Your task to perform on an android device: open app "Google Pay: Save, Pay, Manage" Image 0: 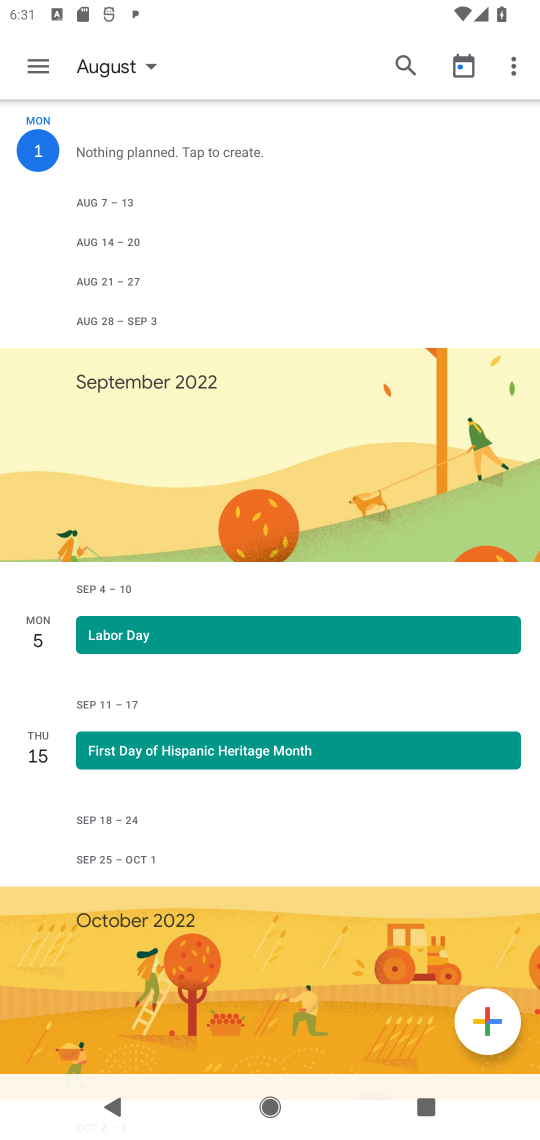
Step 0: press home button
Your task to perform on an android device: open app "Google Pay: Save, Pay, Manage" Image 1: 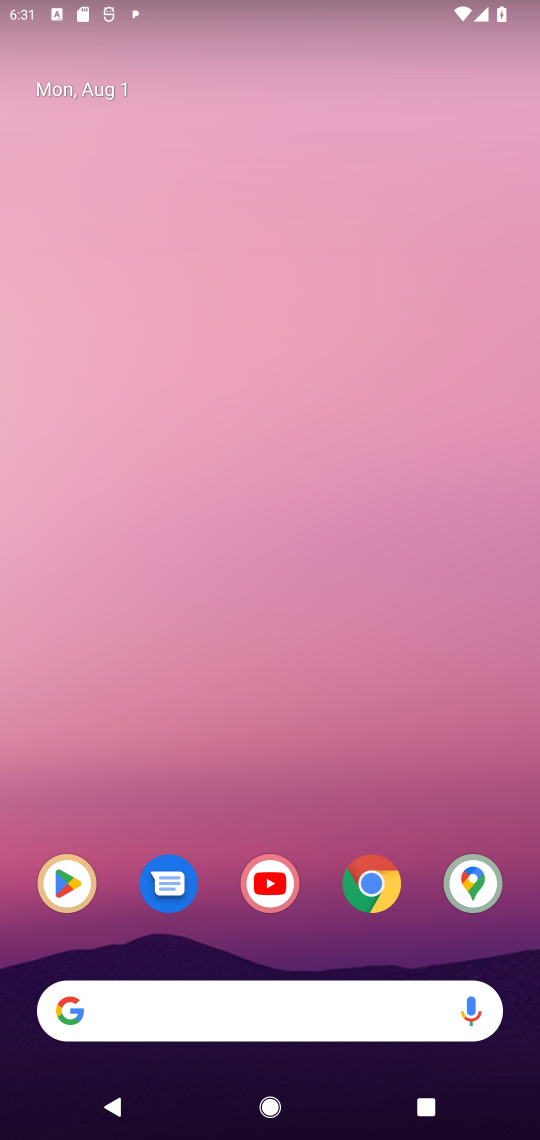
Step 1: click (62, 869)
Your task to perform on an android device: open app "Google Pay: Save, Pay, Manage" Image 2: 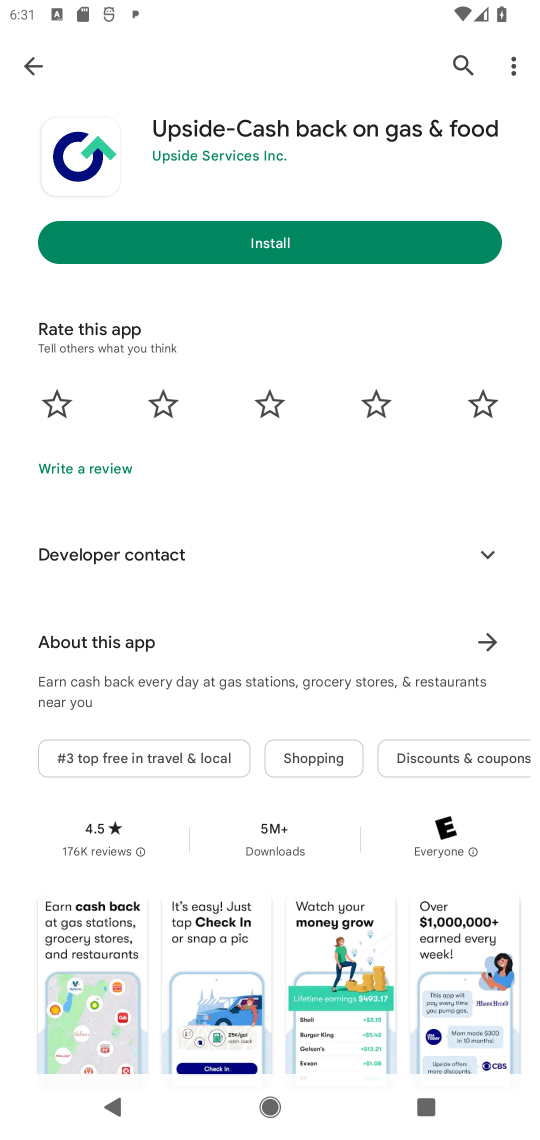
Step 2: click (72, 60)
Your task to perform on an android device: open app "Google Pay: Save, Pay, Manage" Image 3: 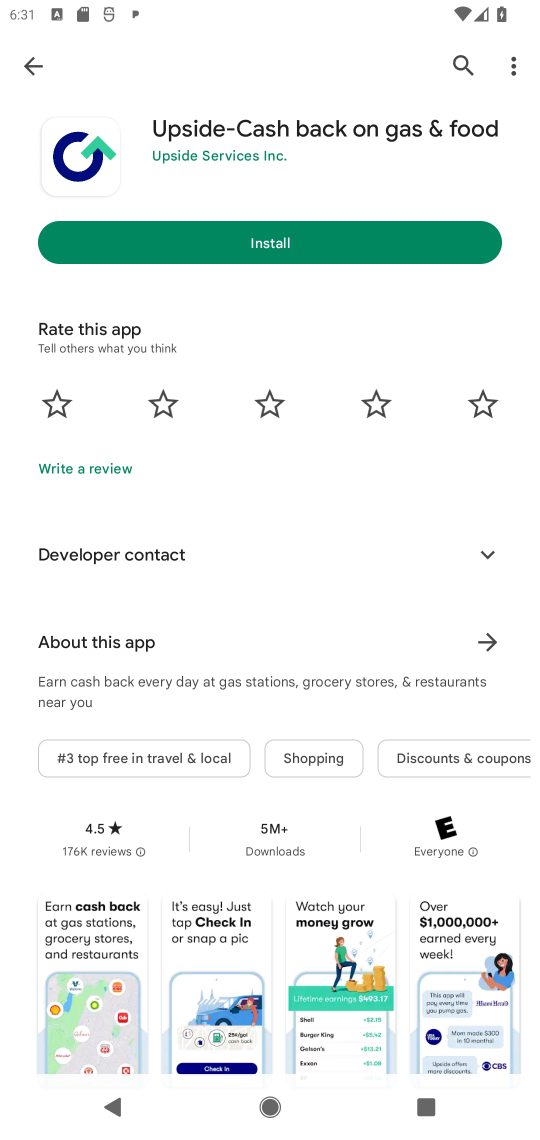
Step 3: click (35, 61)
Your task to perform on an android device: open app "Google Pay: Save, Pay, Manage" Image 4: 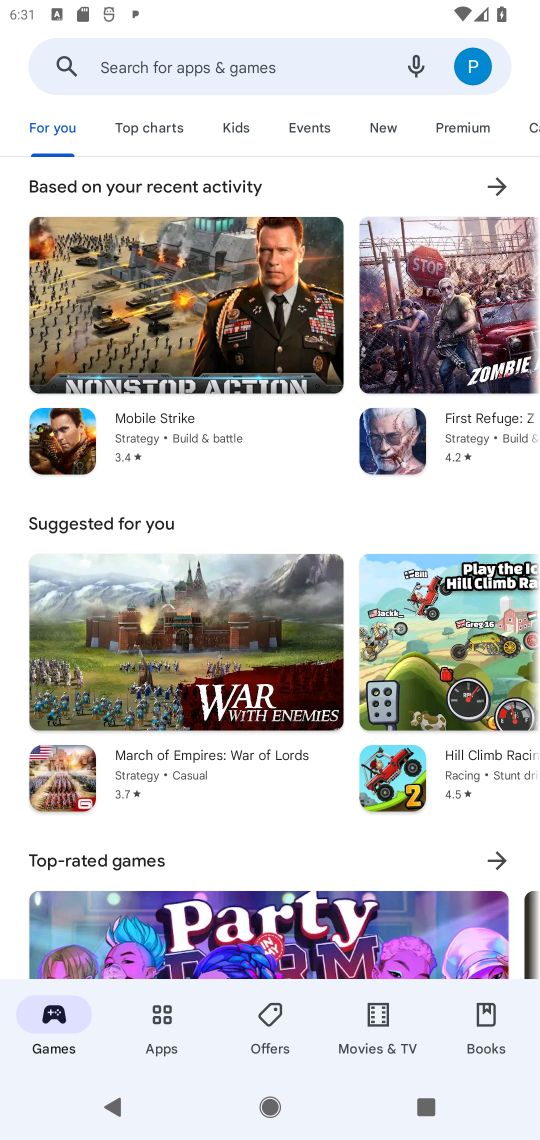
Step 4: click (121, 74)
Your task to perform on an android device: open app "Google Pay: Save, Pay, Manage" Image 5: 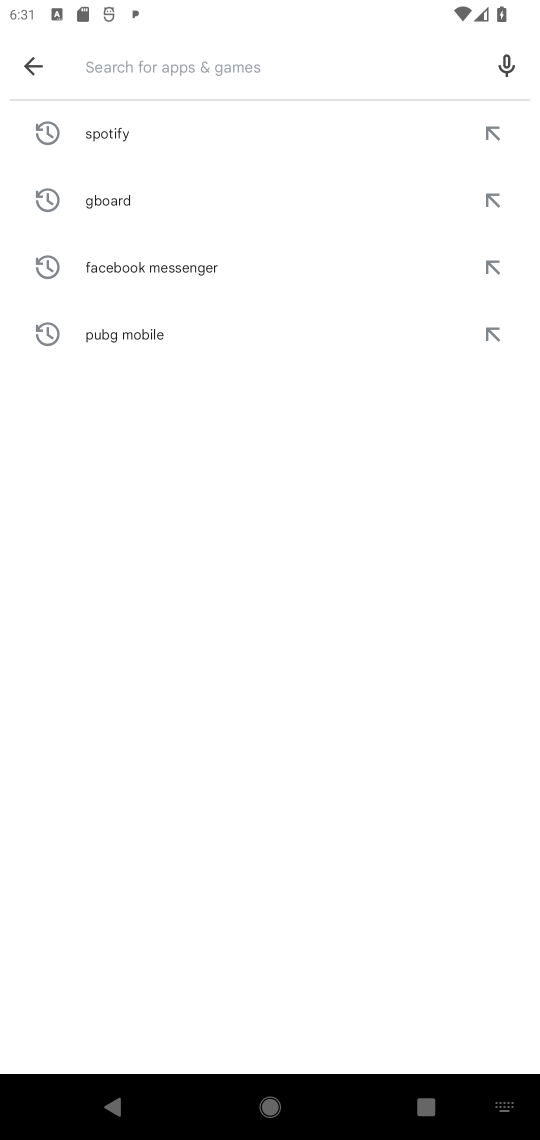
Step 5: type "google pay"
Your task to perform on an android device: open app "Google Pay: Save, Pay, Manage" Image 6: 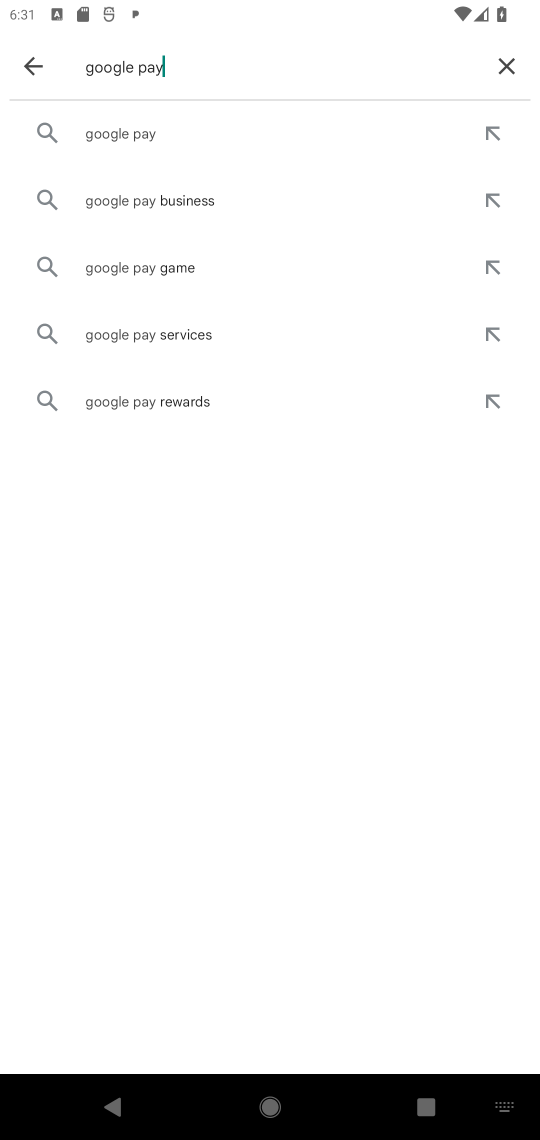
Step 6: click (146, 134)
Your task to perform on an android device: open app "Google Pay: Save, Pay, Manage" Image 7: 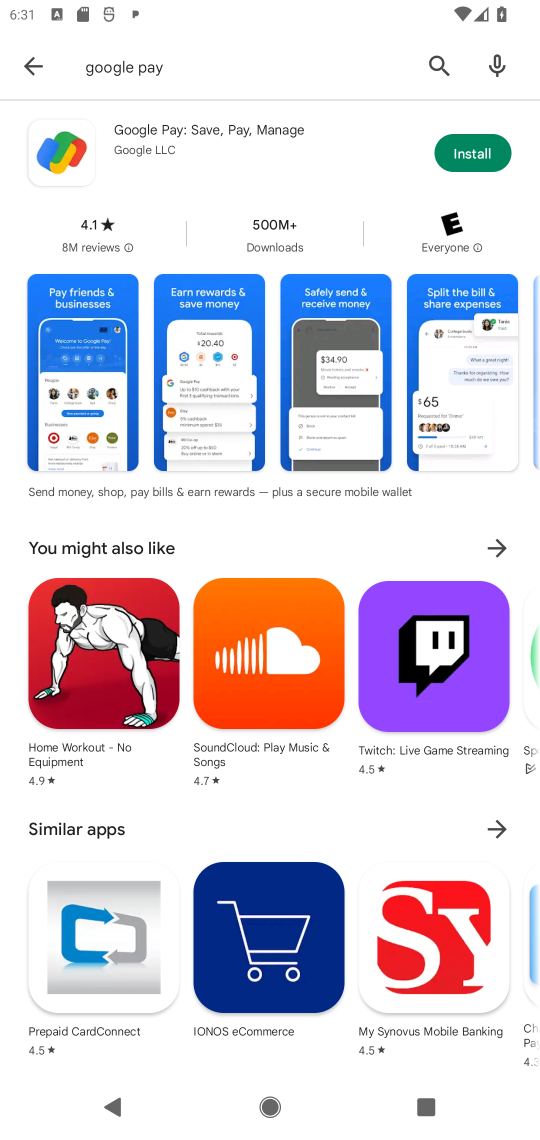
Step 7: task complete